Your task to perform on an android device: Turn on the flashlight Image 0: 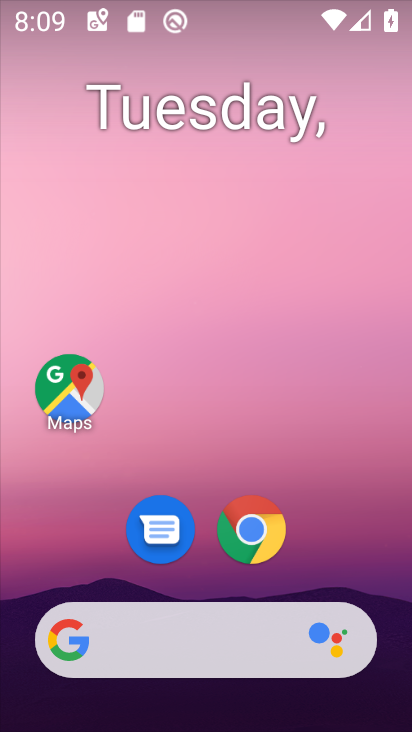
Step 0: drag from (208, 549) to (232, 54)
Your task to perform on an android device: Turn on the flashlight Image 1: 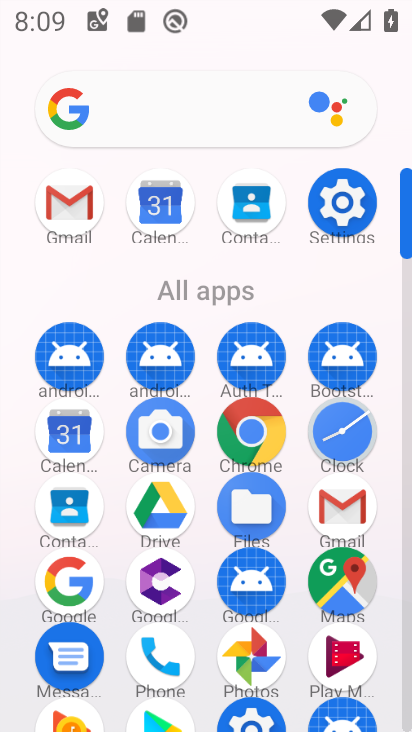
Step 1: click (338, 202)
Your task to perform on an android device: Turn on the flashlight Image 2: 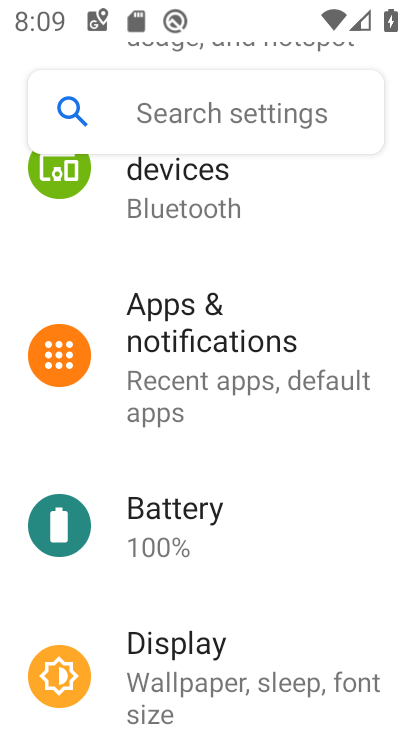
Step 2: click (193, 109)
Your task to perform on an android device: Turn on the flashlight Image 3: 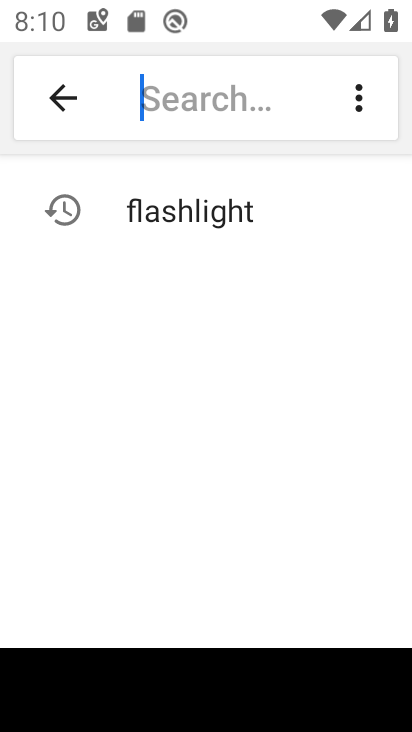
Step 3: click (207, 211)
Your task to perform on an android device: Turn on the flashlight Image 4: 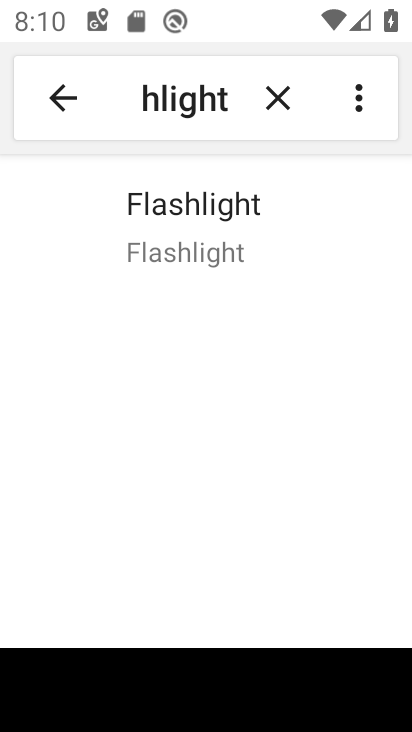
Step 4: click (203, 212)
Your task to perform on an android device: Turn on the flashlight Image 5: 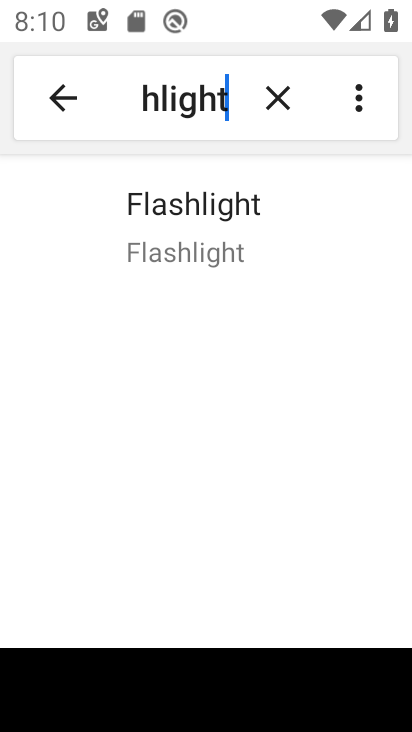
Step 5: task complete